Your task to perform on an android device: Open Google Chrome and click the shortcut for Amazon.com Image 0: 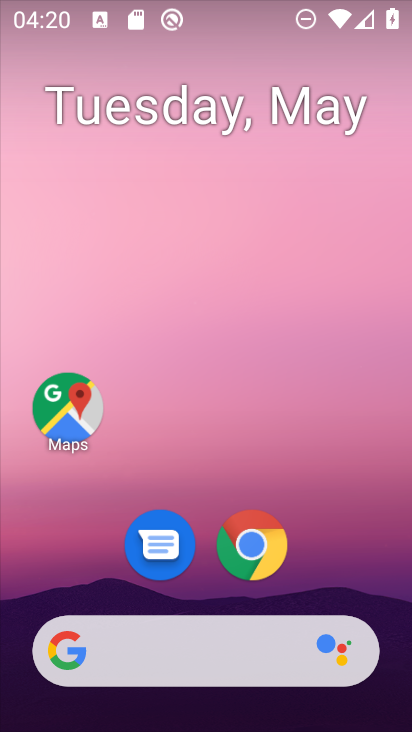
Step 0: click (252, 544)
Your task to perform on an android device: Open Google Chrome and click the shortcut for Amazon.com Image 1: 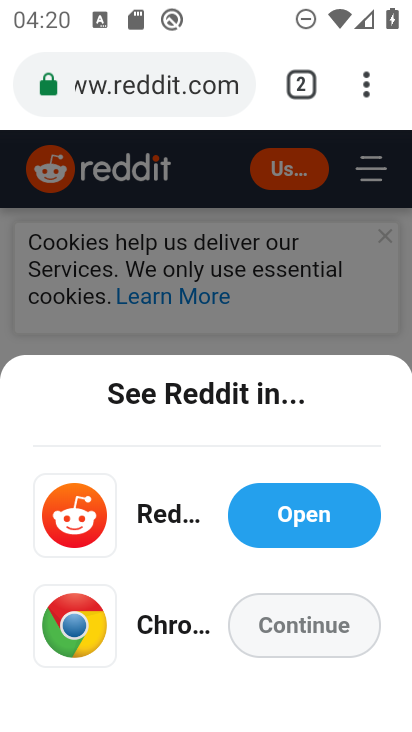
Step 1: click (367, 88)
Your task to perform on an android device: Open Google Chrome and click the shortcut for Amazon.com Image 2: 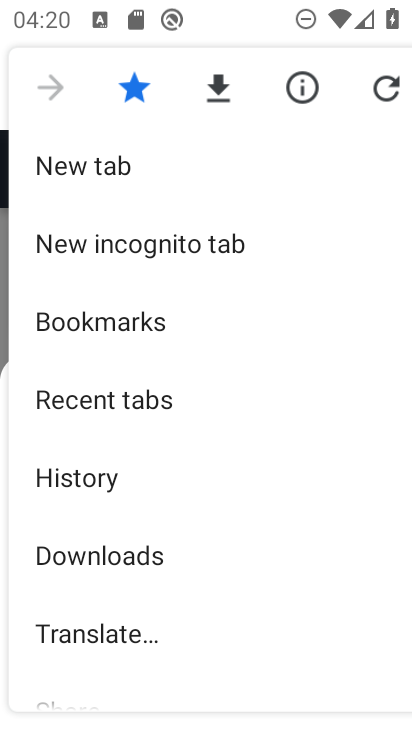
Step 2: click (70, 156)
Your task to perform on an android device: Open Google Chrome and click the shortcut for Amazon.com Image 3: 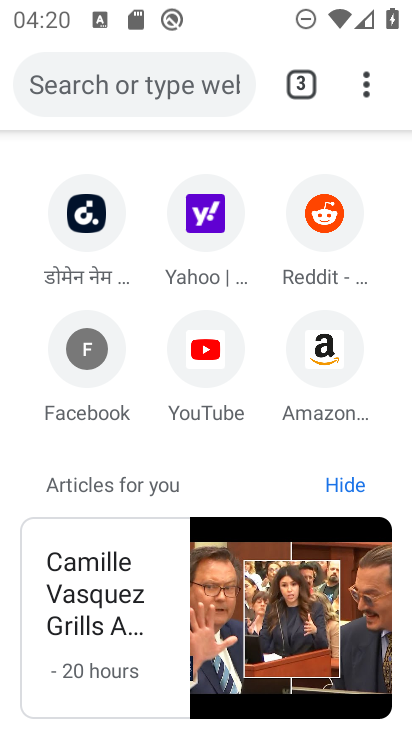
Step 3: click (322, 353)
Your task to perform on an android device: Open Google Chrome and click the shortcut for Amazon.com Image 4: 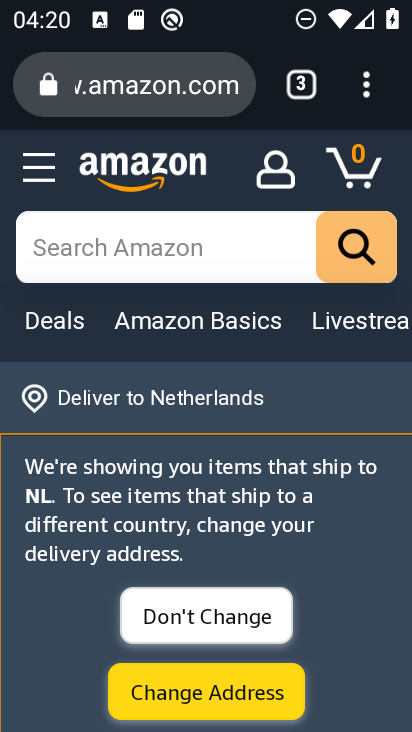
Step 4: task complete